Your task to perform on an android device: check the backup settings in the google photos Image 0: 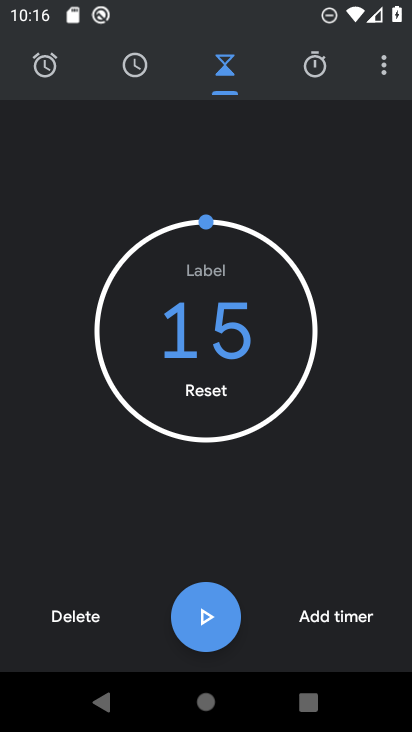
Step 0: press home button
Your task to perform on an android device: check the backup settings in the google photos Image 1: 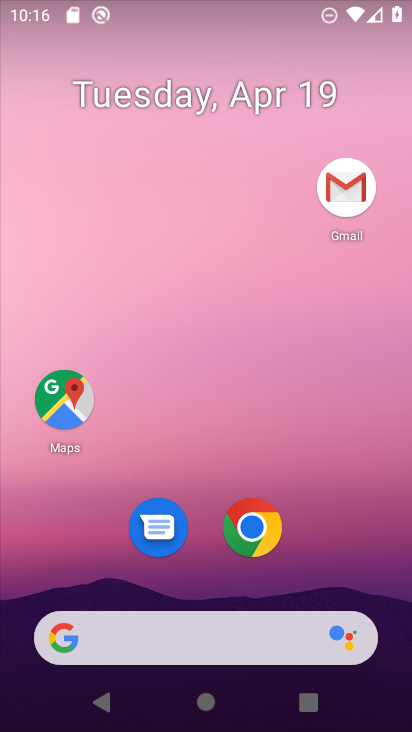
Step 1: drag from (356, 520) to (371, 128)
Your task to perform on an android device: check the backup settings in the google photos Image 2: 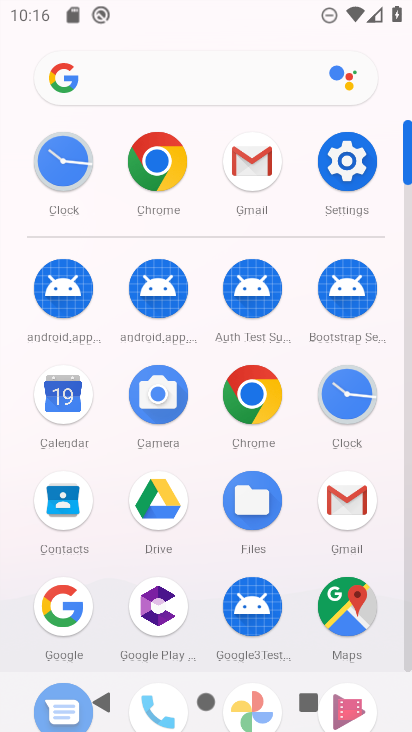
Step 2: drag from (293, 585) to (309, 296)
Your task to perform on an android device: check the backup settings in the google photos Image 3: 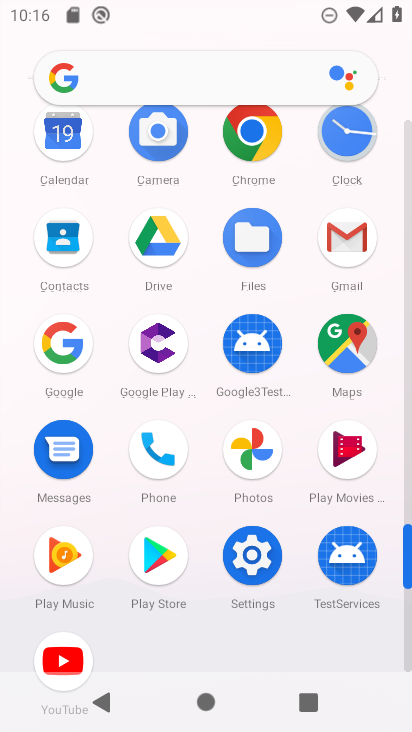
Step 3: click (251, 465)
Your task to perform on an android device: check the backup settings in the google photos Image 4: 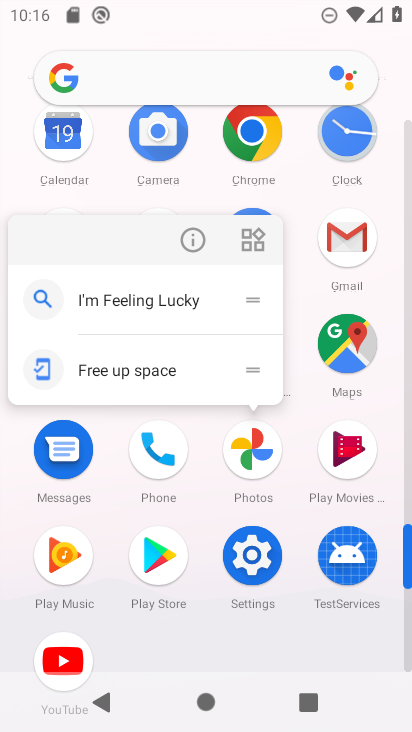
Step 4: click (251, 465)
Your task to perform on an android device: check the backup settings in the google photos Image 5: 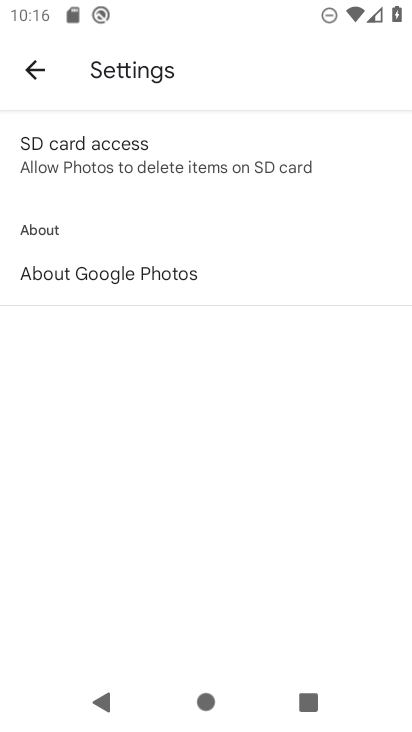
Step 5: click (30, 75)
Your task to perform on an android device: check the backup settings in the google photos Image 6: 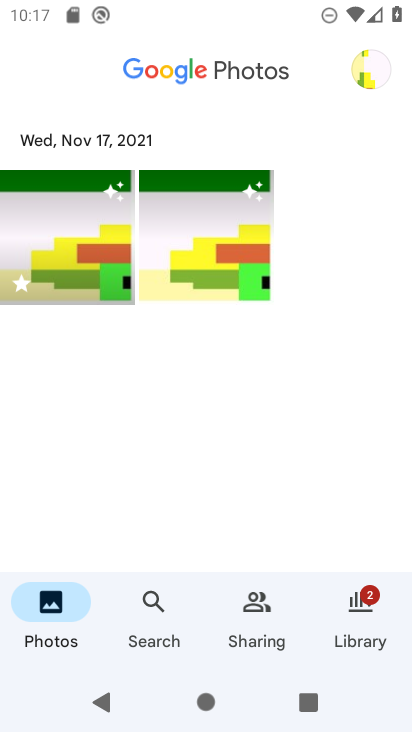
Step 6: click (358, 67)
Your task to perform on an android device: check the backup settings in the google photos Image 7: 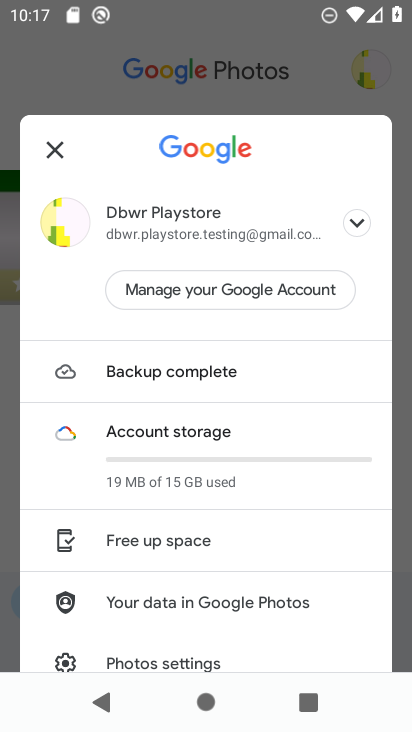
Step 7: click (181, 374)
Your task to perform on an android device: check the backup settings in the google photos Image 8: 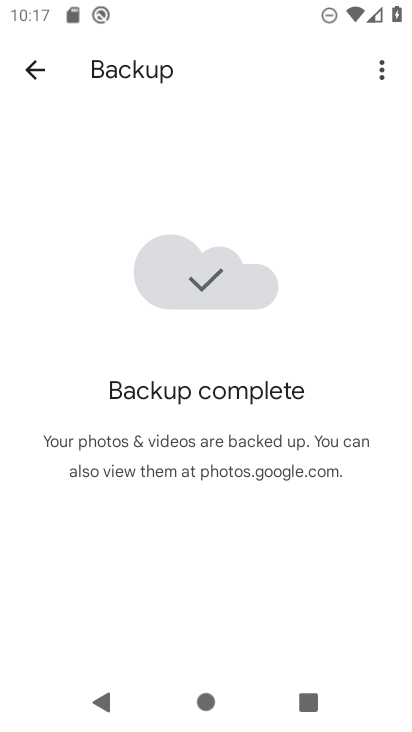
Step 8: click (380, 67)
Your task to perform on an android device: check the backup settings in the google photos Image 9: 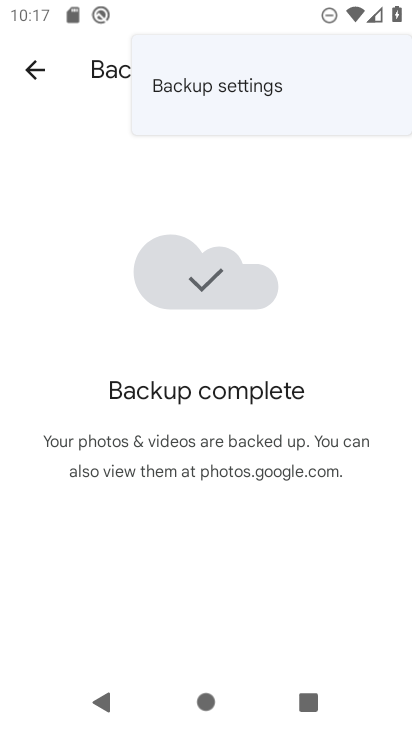
Step 9: click (295, 89)
Your task to perform on an android device: check the backup settings in the google photos Image 10: 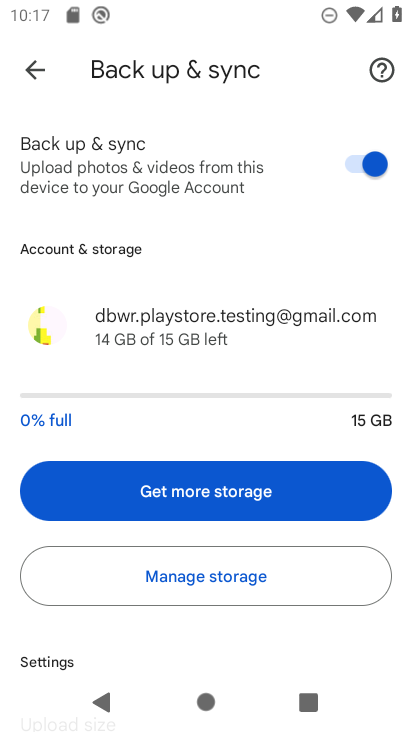
Step 10: task complete